Your task to perform on an android device: Open Android settings Image 0: 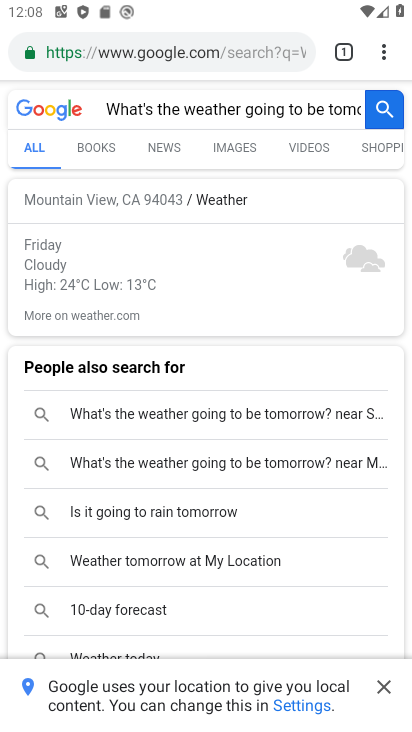
Step 0: press home button
Your task to perform on an android device: Open Android settings Image 1: 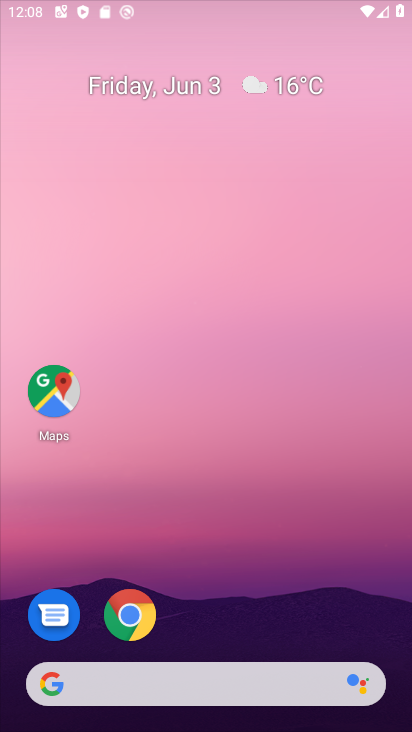
Step 1: drag from (198, 597) to (223, 281)
Your task to perform on an android device: Open Android settings Image 2: 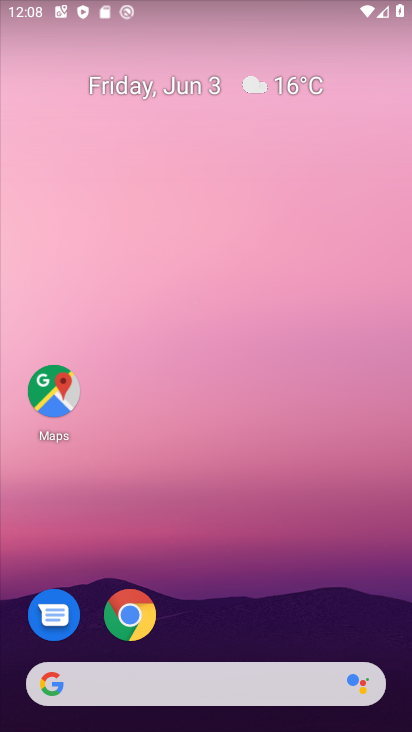
Step 2: drag from (229, 619) to (289, 254)
Your task to perform on an android device: Open Android settings Image 3: 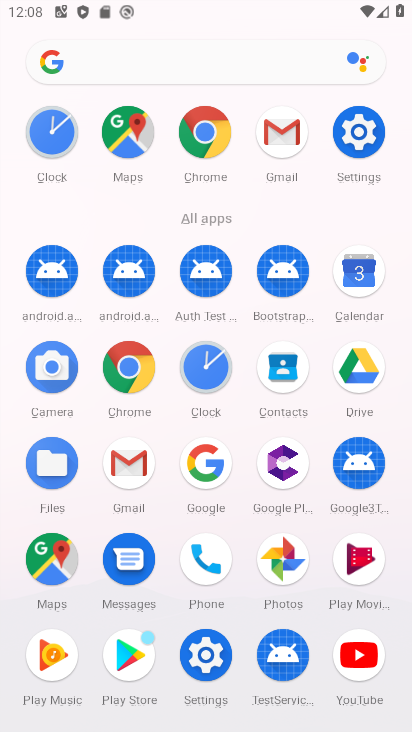
Step 3: click (362, 110)
Your task to perform on an android device: Open Android settings Image 4: 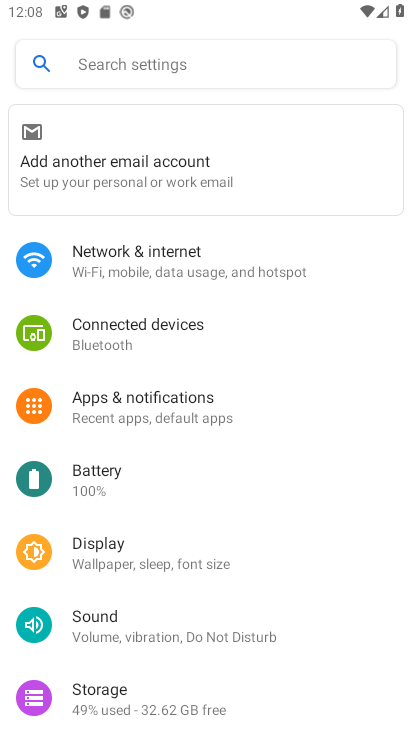
Step 4: task complete